Your task to perform on an android device: Go to calendar. Show me events next week Image 0: 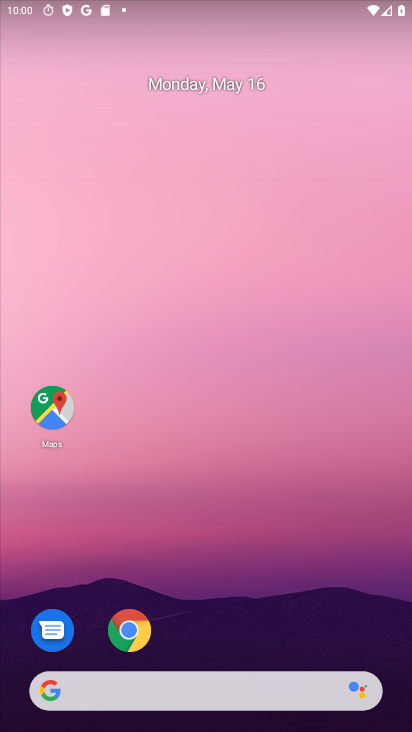
Step 0: drag from (220, 641) to (318, 95)
Your task to perform on an android device: Go to calendar. Show me events next week Image 1: 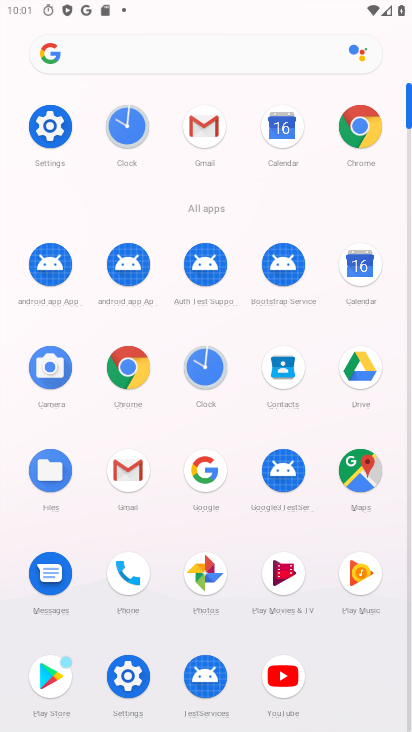
Step 1: click (353, 274)
Your task to perform on an android device: Go to calendar. Show me events next week Image 2: 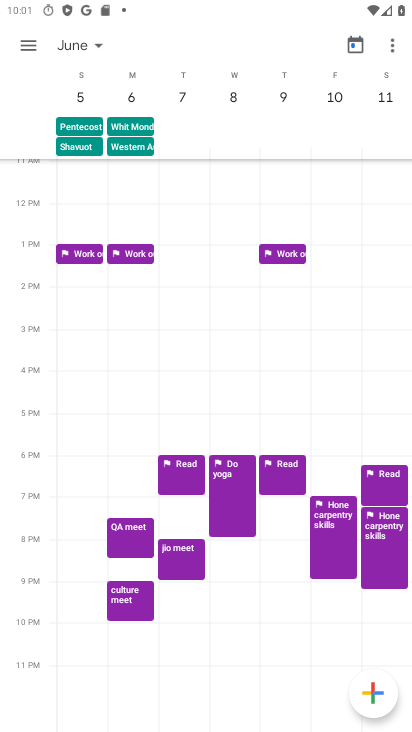
Step 2: click (32, 49)
Your task to perform on an android device: Go to calendar. Show me events next week Image 3: 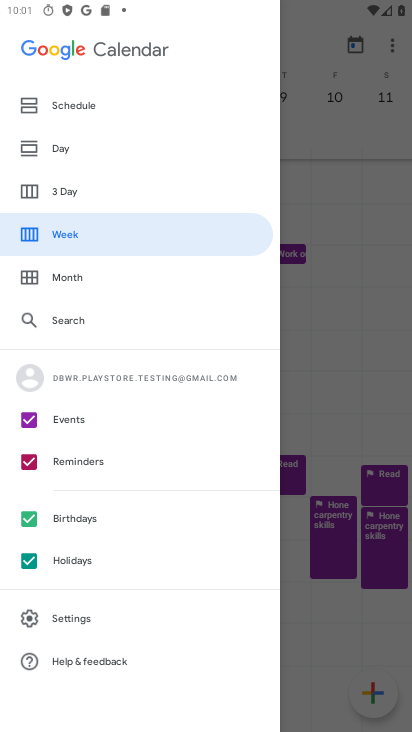
Step 3: click (52, 468)
Your task to perform on an android device: Go to calendar. Show me events next week Image 4: 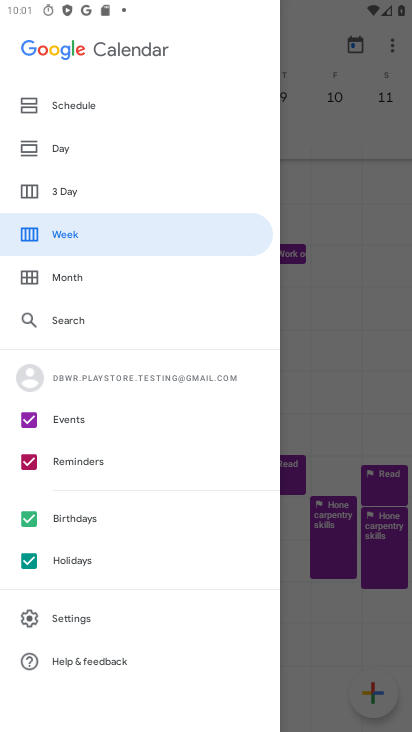
Step 4: click (54, 542)
Your task to perform on an android device: Go to calendar. Show me events next week Image 5: 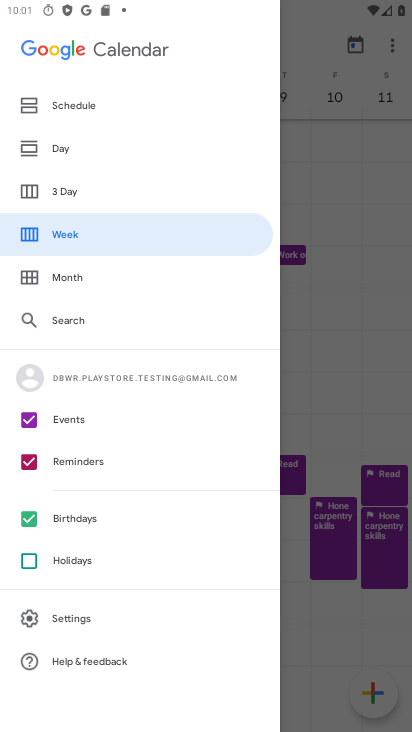
Step 5: click (63, 514)
Your task to perform on an android device: Go to calendar. Show me events next week Image 6: 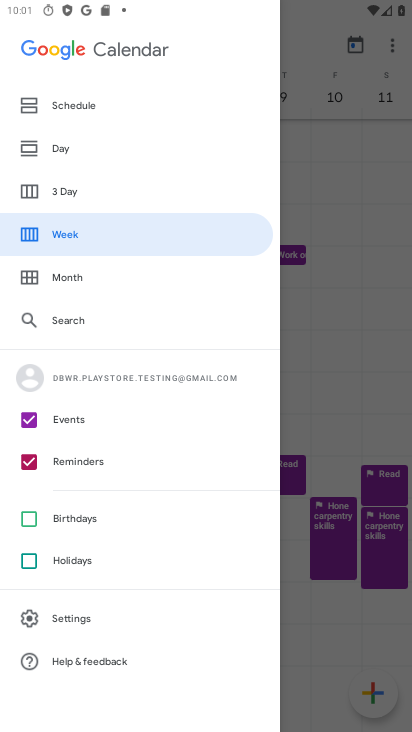
Step 6: click (68, 465)
Your task to perform on an android device: Go to calendar. Show me events next week Image 7: 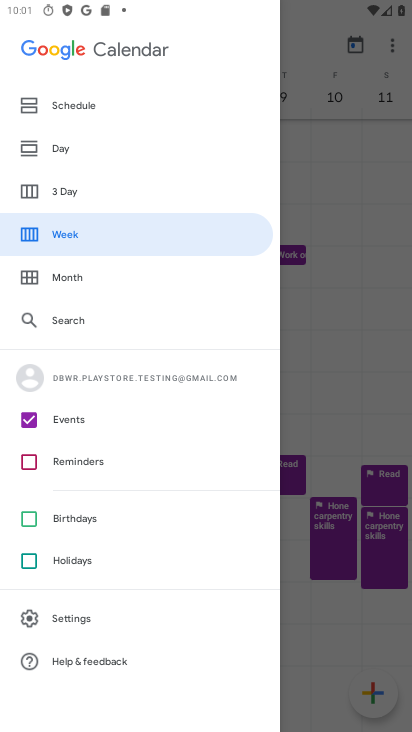
Step 7: click (59, 225)
Your task to perform on an android device: Go to calendar. Show me events next week Image 8: 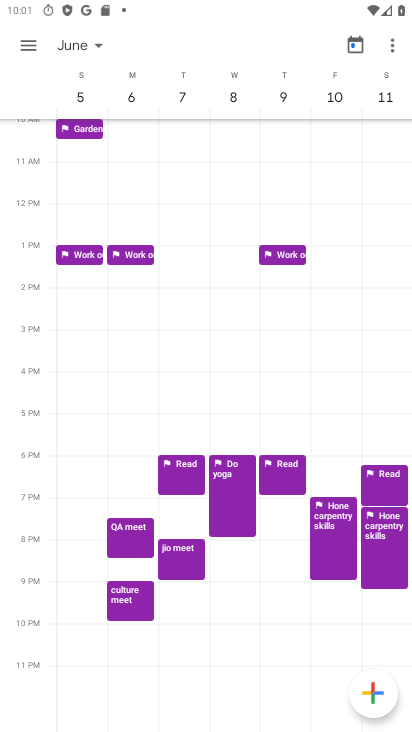
Step 8: task complete